Your task to perform on an android device: turn on location history Image 0: 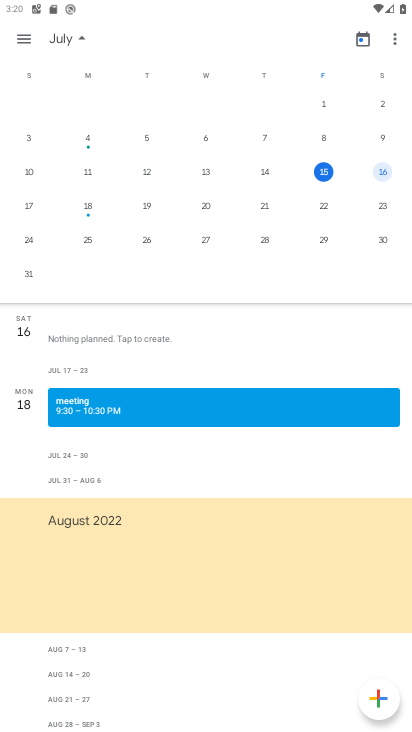
Step 0: press home button
Your task to perform on an android device: turn on location history Image 1: 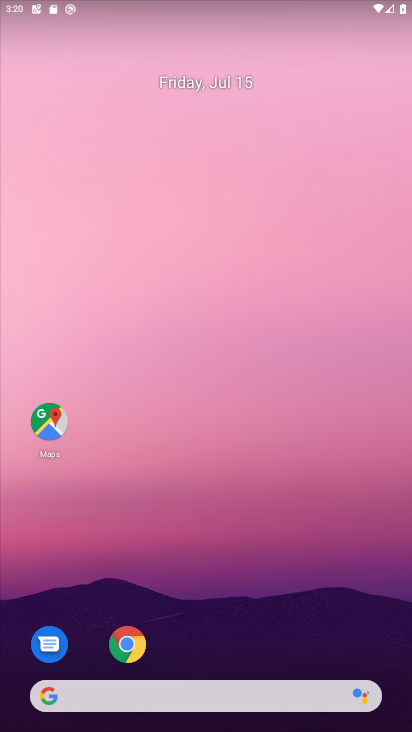
Step 1: drag from (300, 660) to (310, 505)
Your task to perform on an android device: turn on location history Image 2: 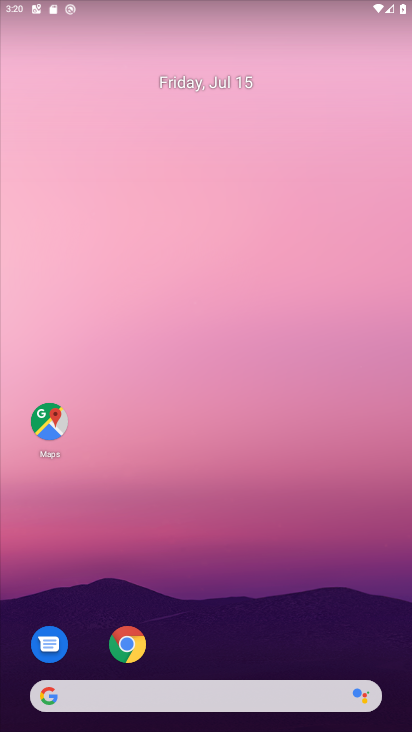
Step 2: drag from (245, 624) to (319, 170)
Your task to perform on an android device: turn on location history Image 3: 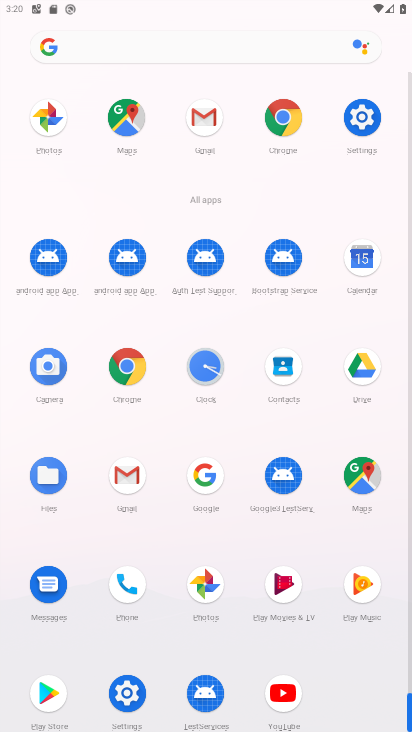
Step 3: click (361, 129)
Your task to perform on an android device: turn on location history Image 4: 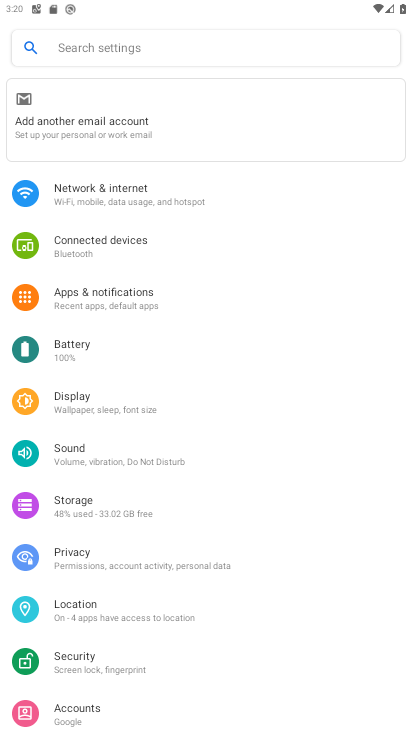
Step 4: click (93, 612)
Your task to perform on an android device: turn on location history Image 5: 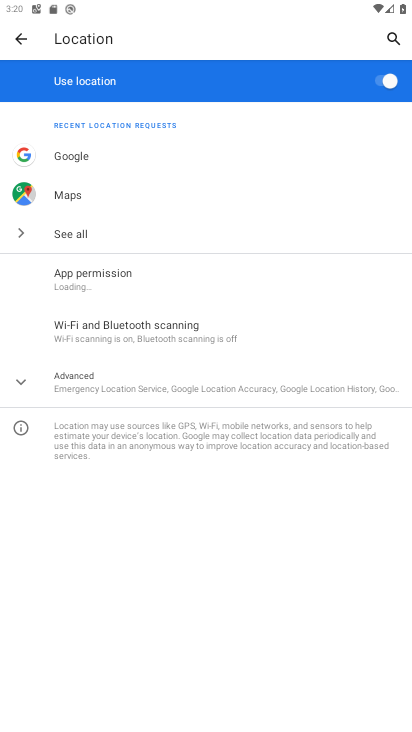
Step 5: click (150, 389)
Your task to perform on an android device: turn on location history Image 6: 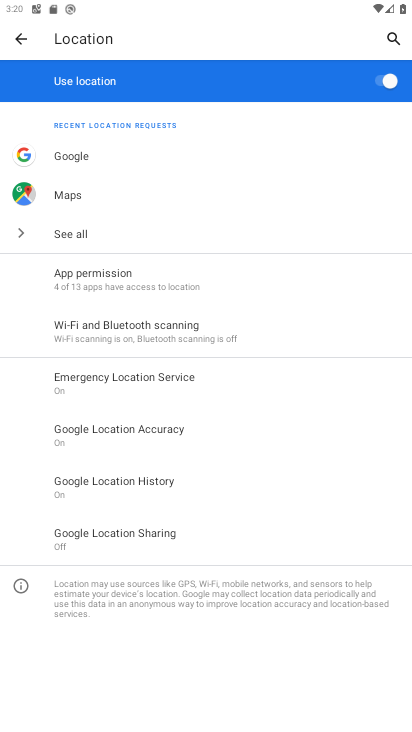
Step 6: task complete